Your task to perform on an android device: Search for Italian restaurants on Maps Image 0: 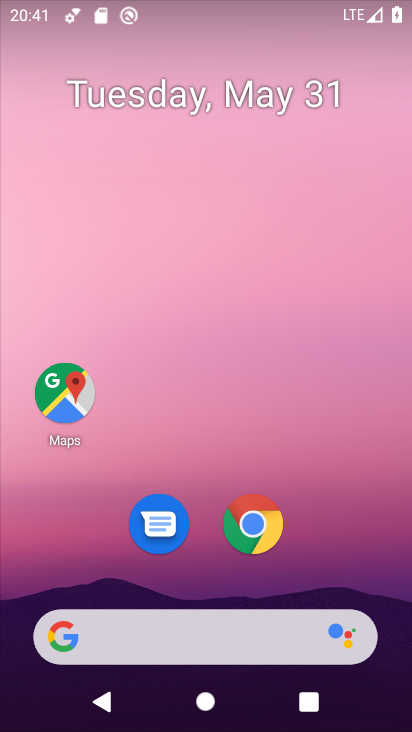
Step 0: click (48, 376)
Your task to perform on an android device: Search for Italian restaurants on Maps Image 1: 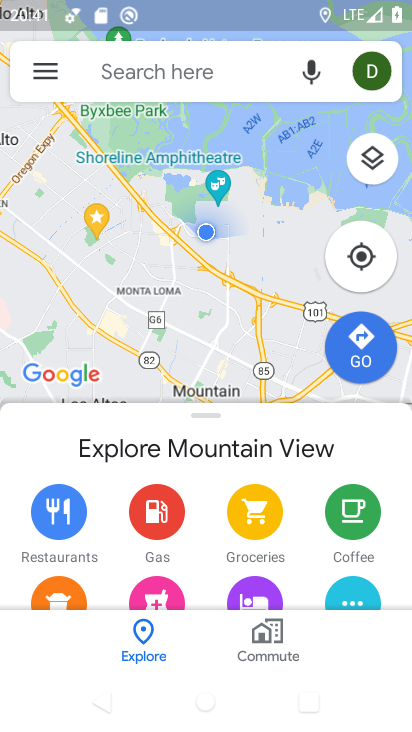
Step 1: click (171, 70)
Your task to perform on an android device: Search for Italian restaurants on Maps Image 2: 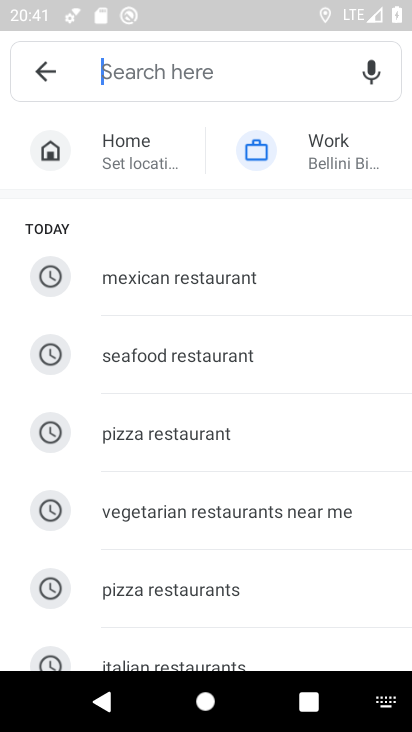
Step 2: drag from (239, 441) to (292, 300)
Your task to perform on an android device: Search for Italian restaurants on Maps Image 3: 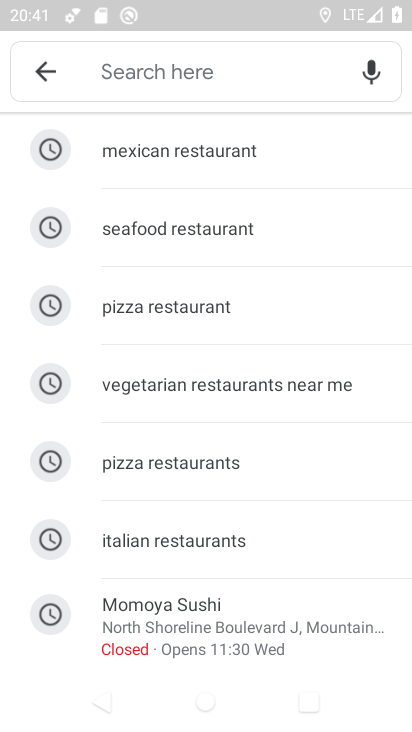
Step 3: click (234, 540)
Your task to perform on an android device: Search for Italian restaurants on Maps Image 4: 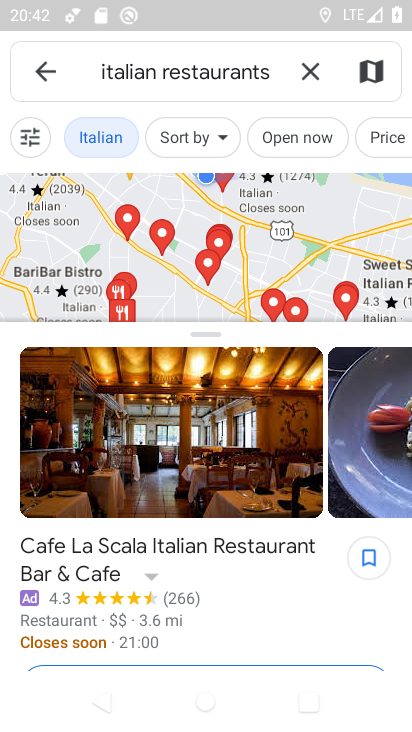
Step 4: task complete